Your task to perform on an android device: change the clock display to show seconds Image 0: 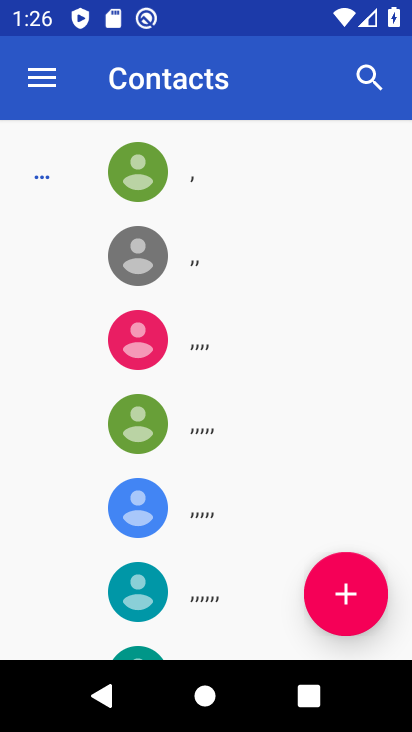
Step 0: press home button
Your task to perform on an android device: change the clock display to show seconds Image 1: 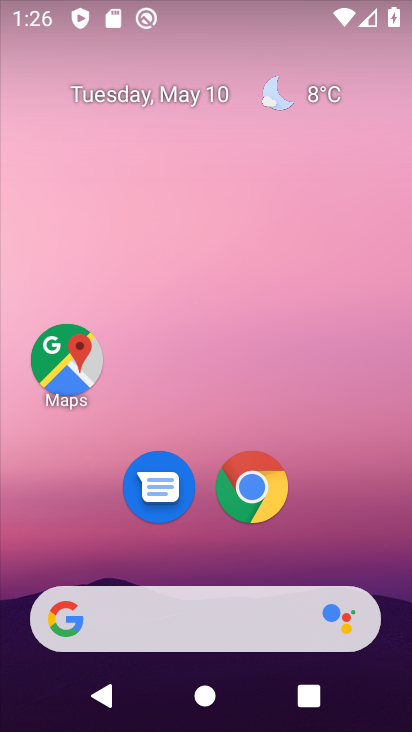
Step 1: drag from (346, 563) to (301, 71)
Your task to perform on an android device: change the clock display to show seconds Image 2: 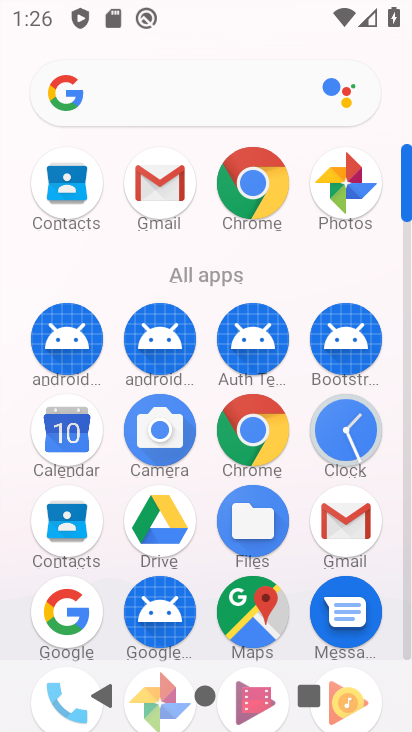
Step 2: click (342, 440)
Your task to perform on an android device: change the clock display to show seconds Image 3: 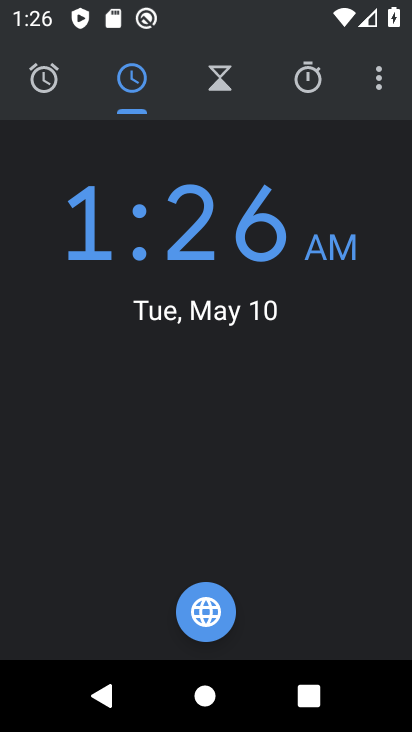
Step 3: click (376, 68)
Your task to perform on an android device: change the clock display to show seconds Image 4: 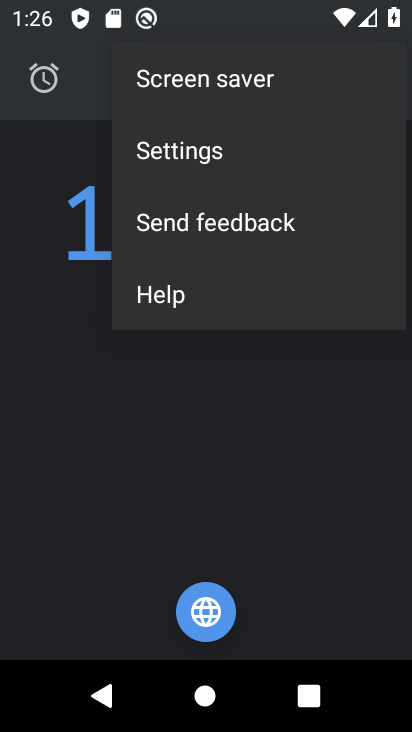
Step 4: click (225, 154)
Your task to perform on an android device: change the clock display to show seconds Image 5: 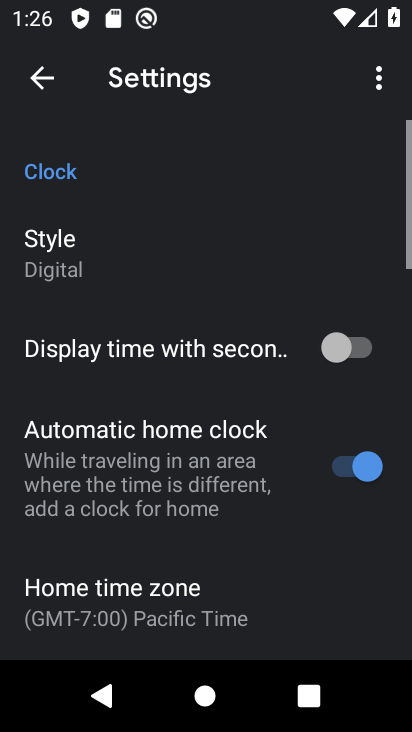
Step 5: click (170, 548)
Your task to perform on an android device: change the clock display to show seconds Image 6: 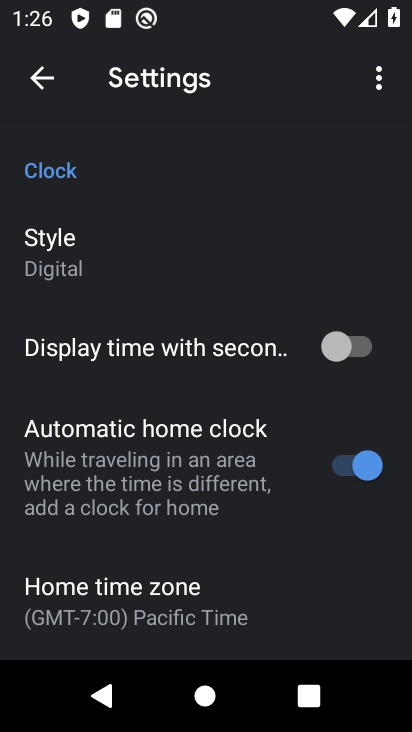
Step 6: drag from (246, 583) to (255, 167)
Your task to perform on an android device: change the clock display to show seconds Image 7: 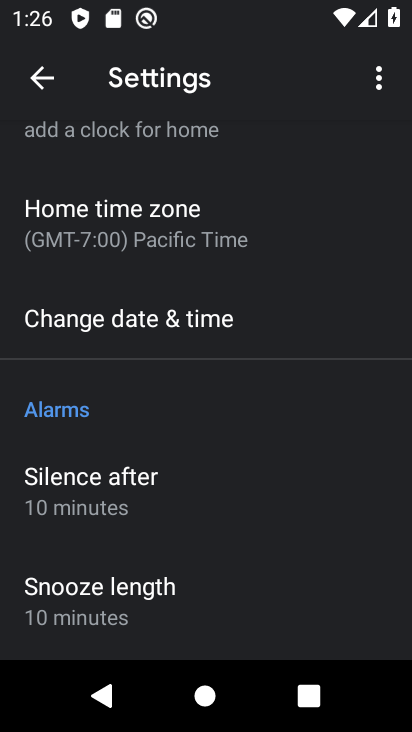
Step 7: drag from (216, 531) to (219, 172)
Your task to perform on an android device: change the clock display to show seconds Image 8: 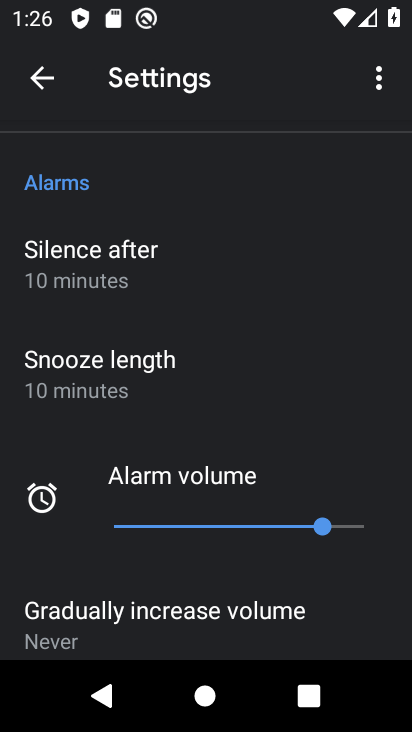
Step 8: drag from (213, 353) to (239, 148)
Your task to perform on an android device: change the clock display to show seconds Image 9: 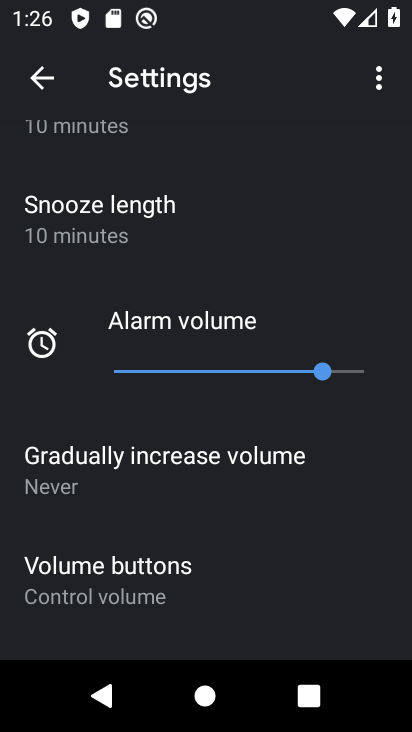
Step 9: drag from (247, 201) to (243, 643)
Your task to perform on an android device: change the clock display to show seconds Image 10: 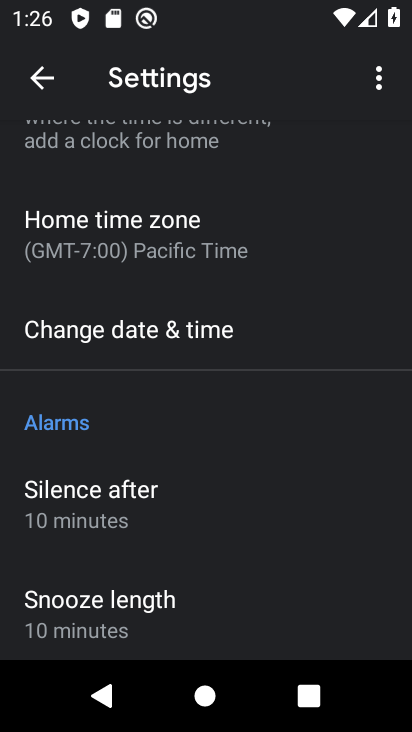
Step 10: drag from (290, 282) to (267, 597)
Your task to perform on an android device: change the clock display to show seconds Image 11: 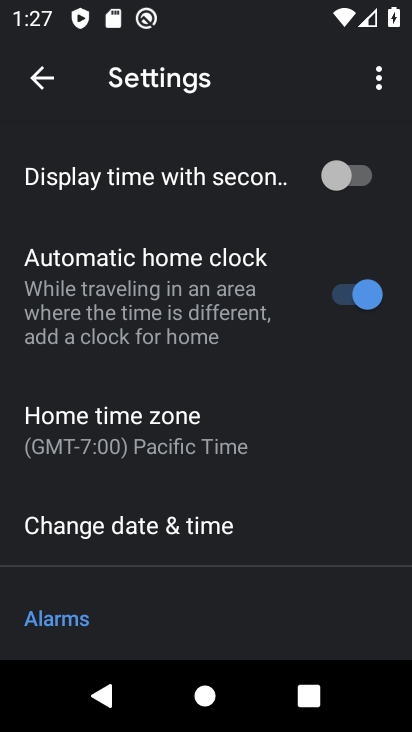
Step 11: click (352, 187)
Your task to perform on an android device: change the clock display to show seconds Image 12: 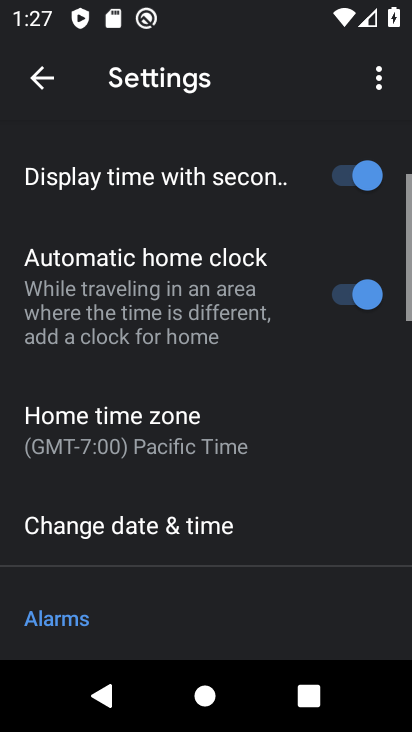
Step 12: task complete